Your task to perform on an android device: Open maps Image 0: 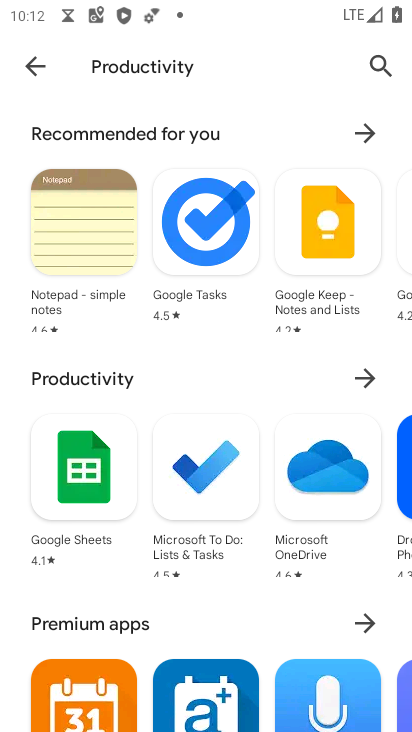
Step 0: press home button
Your task to perform on an android device: Open maps Image 1: 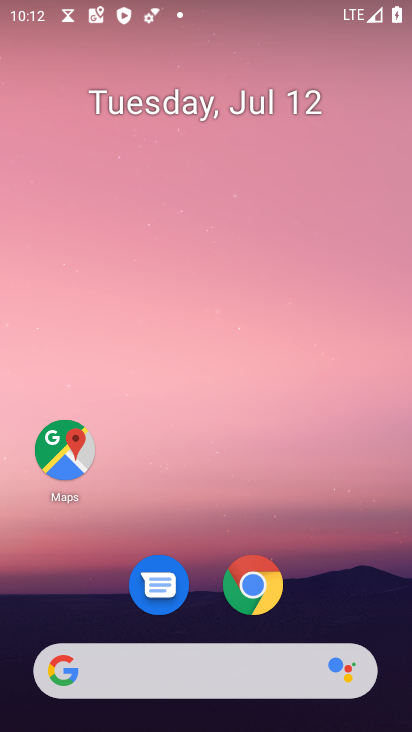
Step 1: click (63, 464)
Your task to perform on an android device: Open maps Image 2: 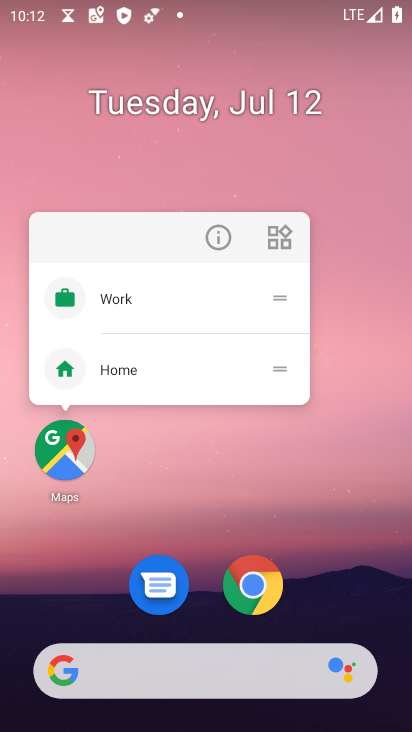
Step 2: click (65, 456)
Your task to perform on an android device: Open maps Image 3: 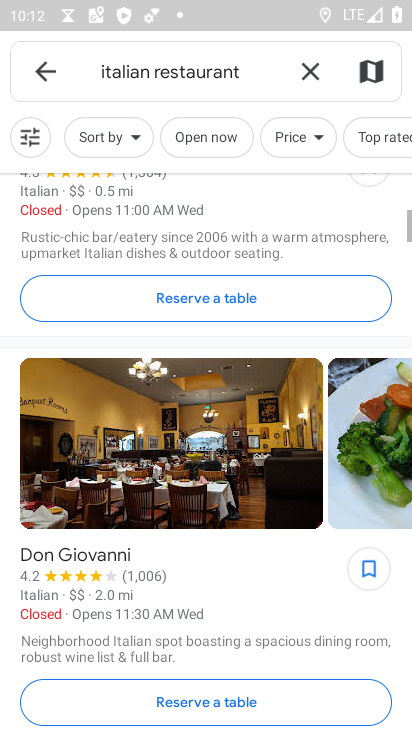
Step 3: click (52, 69)
Your task to perform on an android device: Open maps Image 4: 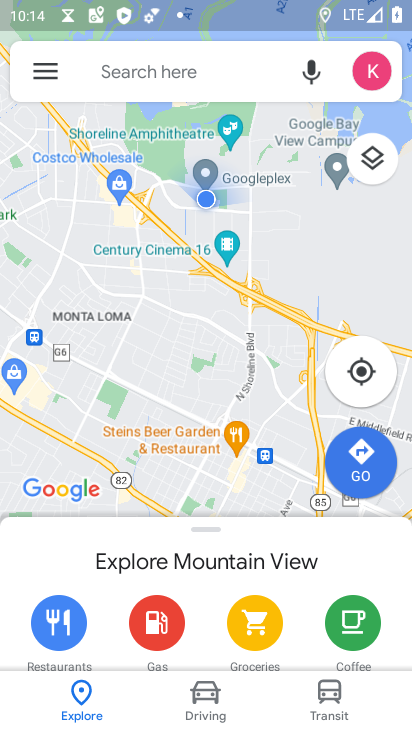
Step 4: task complete